Your task to perform on an android device: Do I have any events this weekend? Image 0: 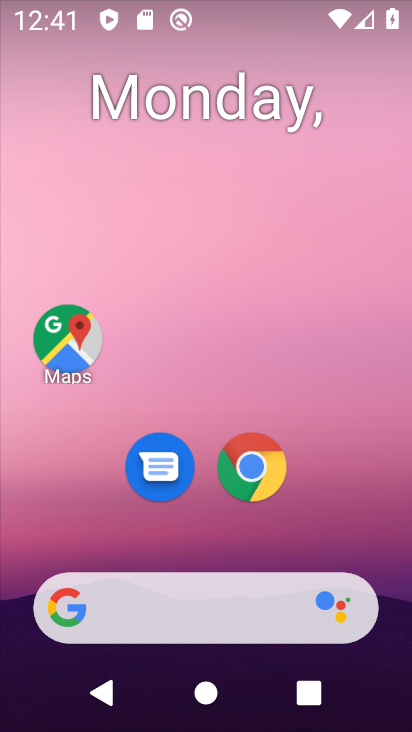
Step 0: drag from (299, 527) to (251, 0)
Your task to perform on an android device: Do I have any events this weekend? Image 1: 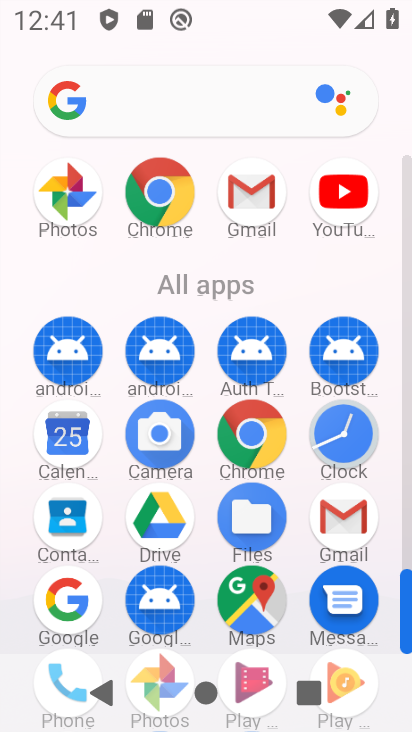
Step 1: click (80, 427)
Your task to perform on an android device: Do I have any events this weekend? Image 2: 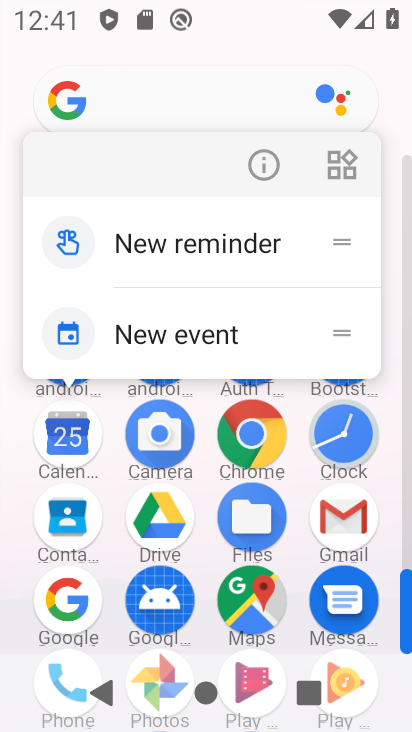
Step 2: click (70, 431)
Your task to perform on an android device: Do I have any events this weekend? Image 3: 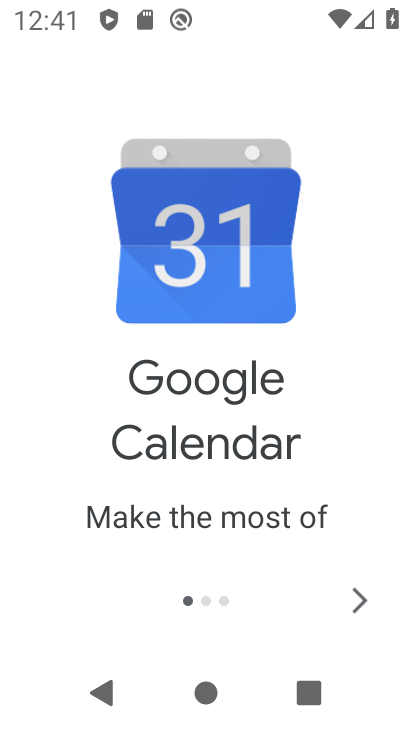
Step 3: click (352, 604)
Your task to perform on an android device: Do I have any events this weekend? Image 4: 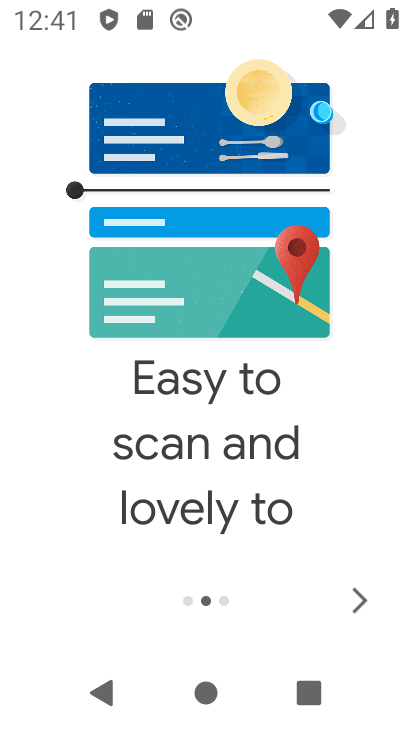
Step 4: click (351, 603)
Your task to perform on an android device: Do I have any events this weekend? Image 5: 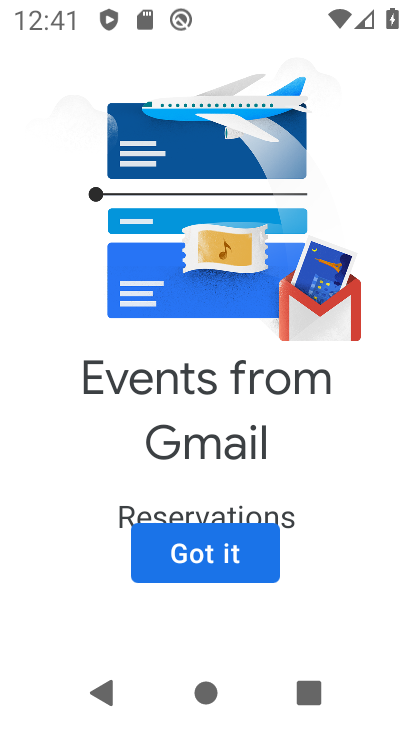
Step 5: click (225, 561)
Your task to perform on an android device: Do I have any events this weekend? Image 6: 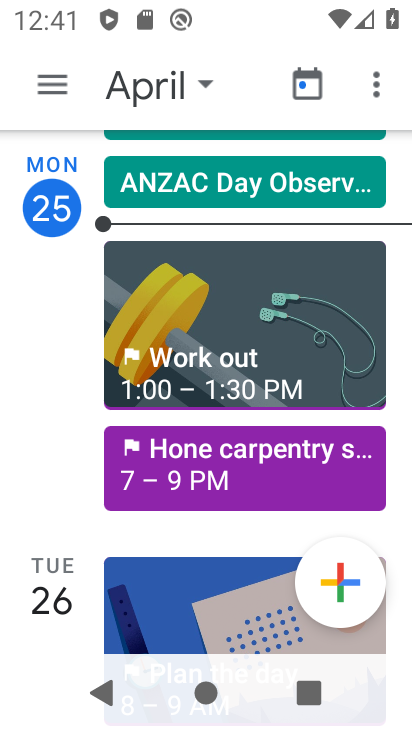
Step 6: click (138, 77)
Your task to perform on an android device: Do I have any events this weekend? Image 7: 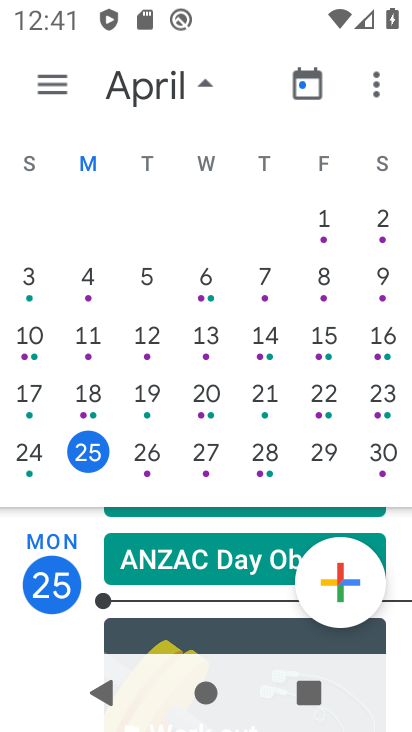
Step 7: click (366, 450)
Your task to perform on an android device: Do I have any events this weekend? Image 8: 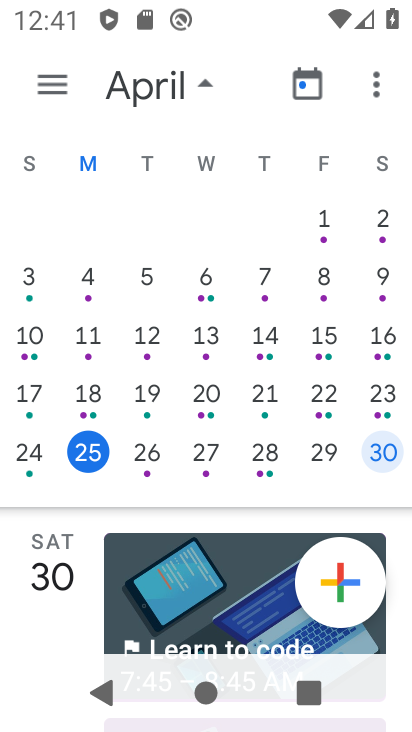
Step 8: task complete